Your task to perform on an android device: Open my contact list Image 0: 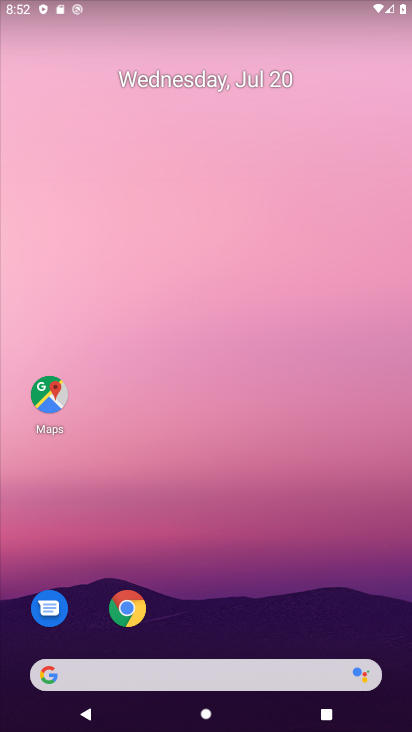
Step 0: drag from (232, 333) to (250, 207)
Your task to perform on an android device: Open my contact list Image 1: 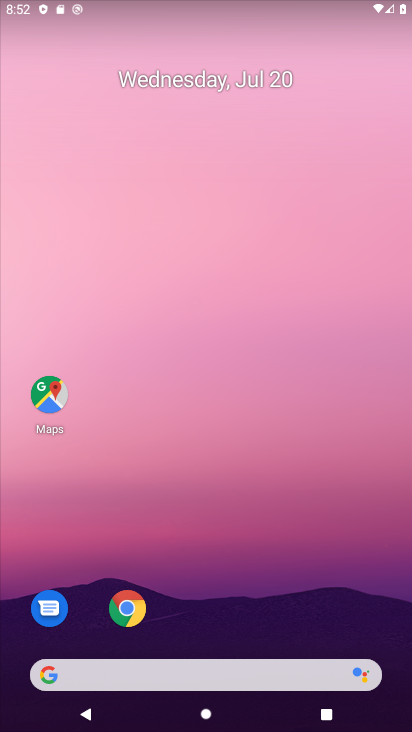
Step 1: drag from (269, 597) to (248, 106)
Your task to perform on an android device: Open my contact list Image 2: 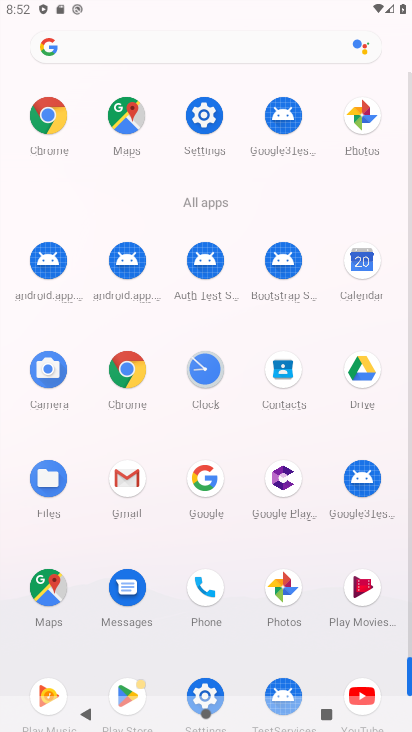
Step 2: click (288, 362)
Your task to perform on an android device: Open my contact list Image 3: 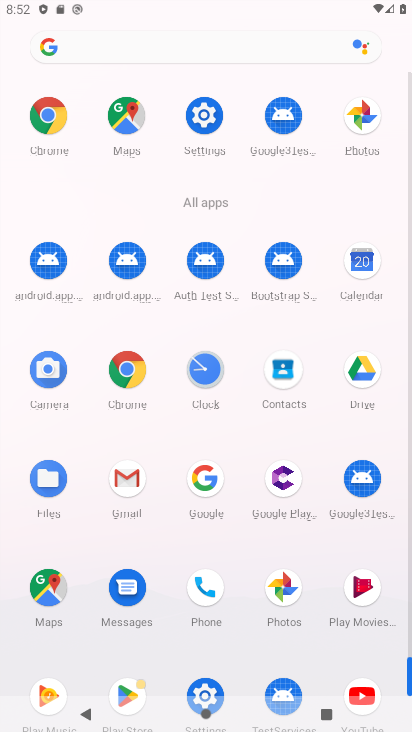
Step 3: click (291, 365)
Your task to perform on an android device: Open my contact list Image 4: 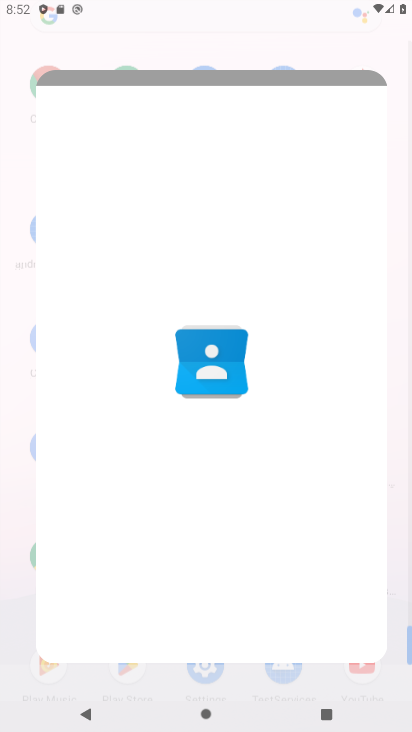
Step 4: click (291, 360)
Your task to perform on an android device: Open my contact list Image 5: 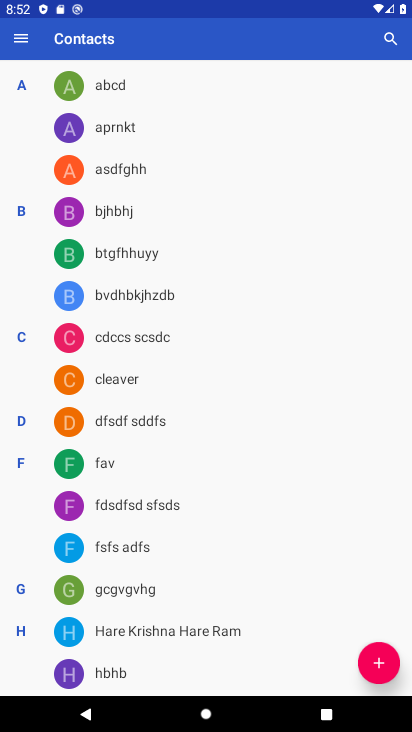
Step 5: task complete